Your task to perform on an android device: check the backup settings in the google photos Image 0: 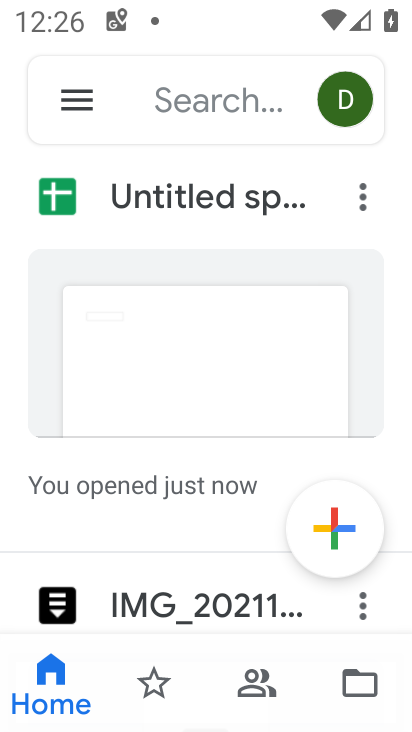
Step 0: press home button
Your task to perform on an android device: check the backup settings in the google photos Image 1: 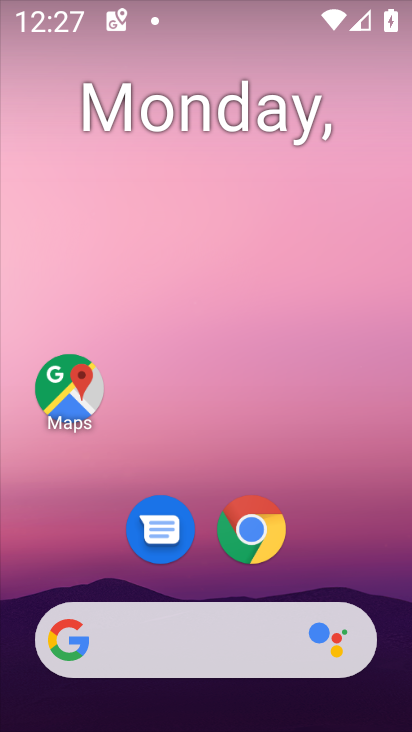
Step 1: drag from (186, 598) to (183, 138)
Your task to perform on an android device: check the backup settings in the google photos Image 2: 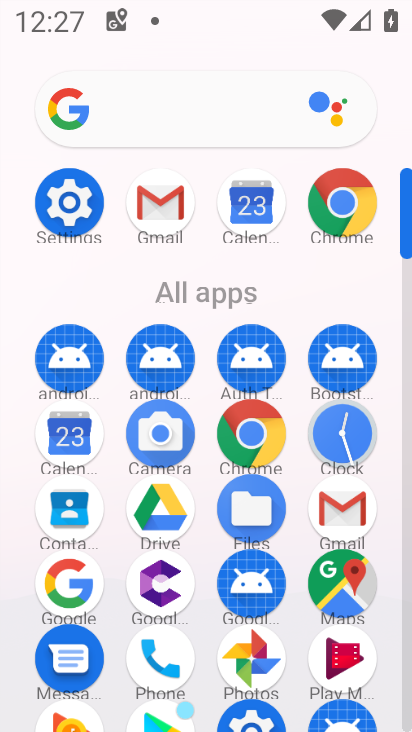
Step 2: click (248, 664)
Your task to perform on an android device: check the backup settings in the google photos Image 3: 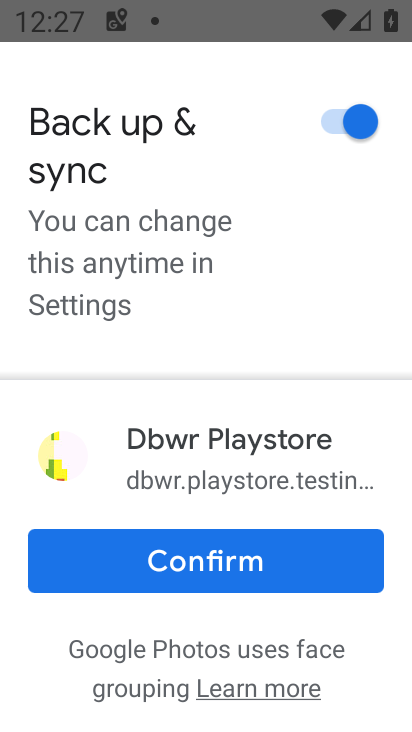
Step 3: click (167, 550)
Your task to perform on an android device: check the backup settings in the google photos Image 4: 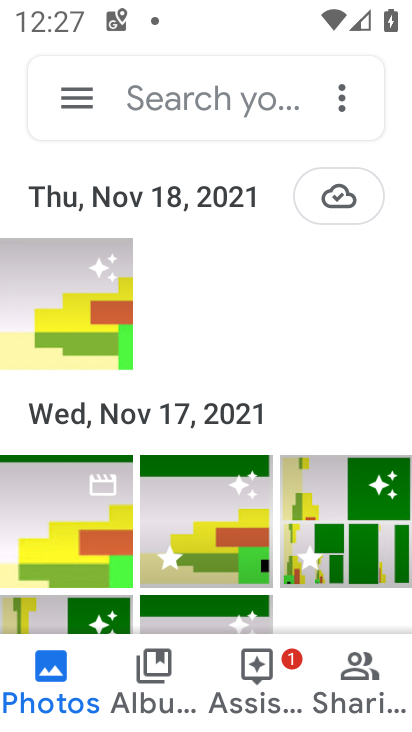
Step 4: click (82, 100)
Your task to perform on an android device: check the backup settings in the google photos Image 5: 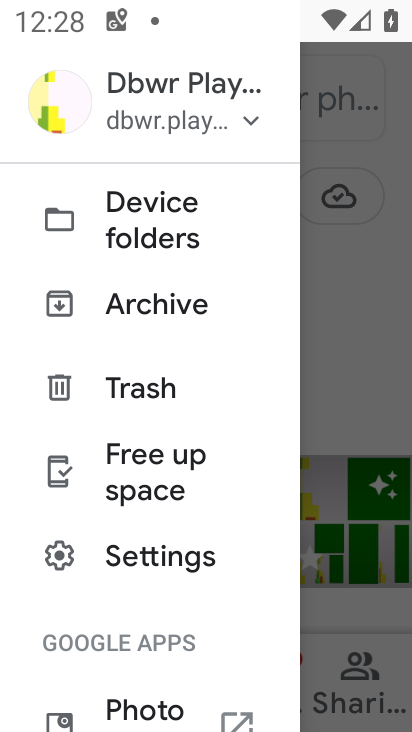
Step 5: click (134, 556)
Your task to perform on an android device: check the backup settings in the google photos Image 6: 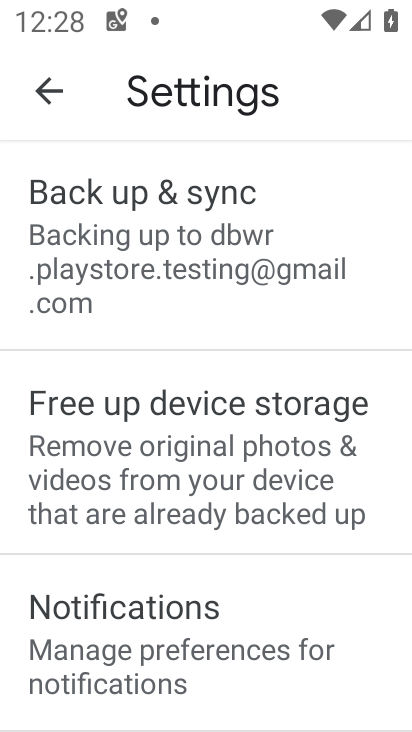
Step 6: click (159, 249)
Your task to perform on an android device: check the backup settings in the google photos Image 7: 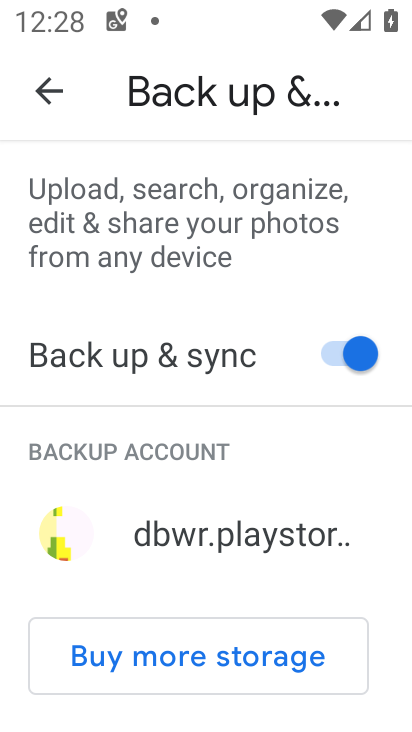
Step 7: task complete